Your task to perform on an android device: Open ESPN.com Image 0: 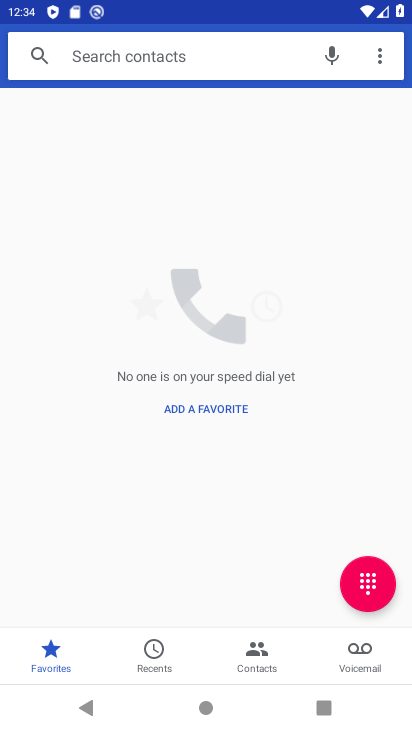
Step 0: press home button
Your task to perform on an android device: Open ESPN.com Image 1: 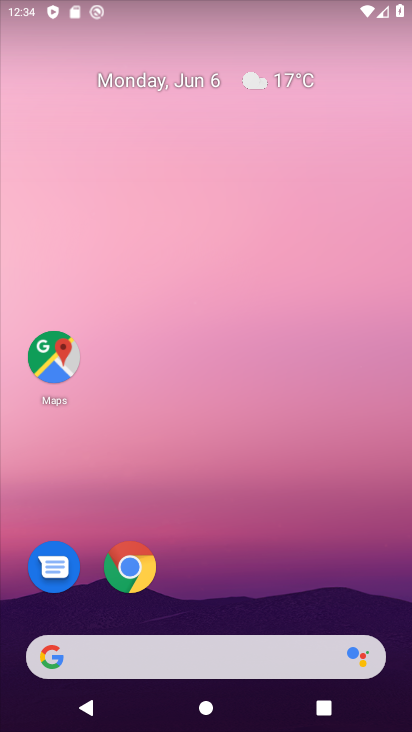
Step 1: click (131, 570)
Your task to perform on an android device: Open ESPN.com Image 2: 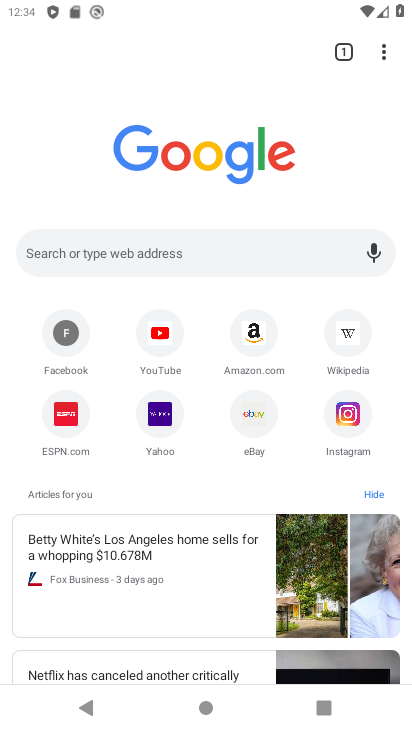
Step 2: click (70, 408)
Your task to perform on an android device: Open ESPN.com Image 3: 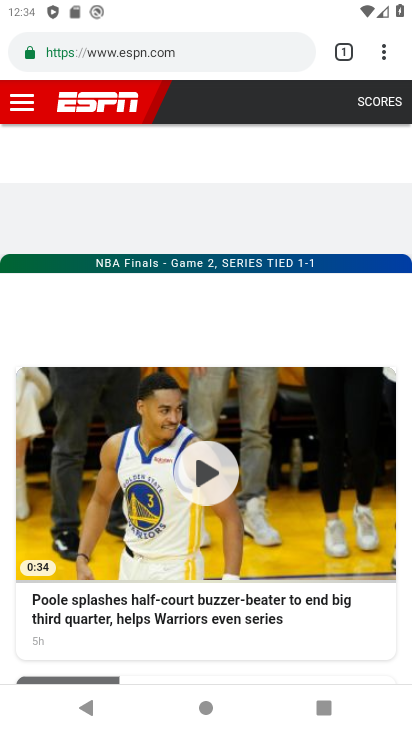
Step 3: task complete